Your task to perform on an android device: turn pop-ups on in chrome Image 0: 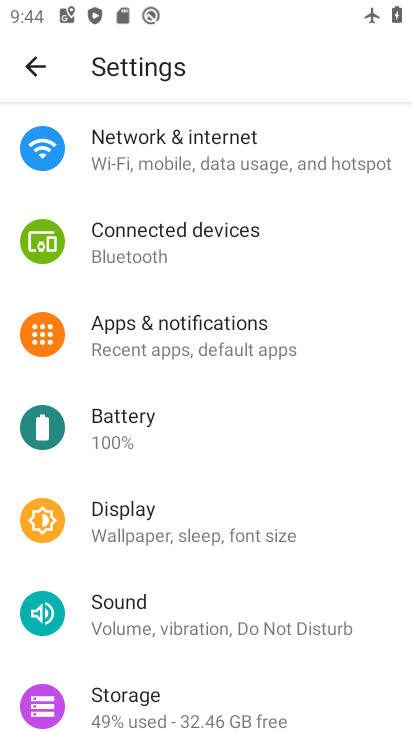
Step 0: press home button
Your task to perform on an android device: turn pop-ups on in chrome Image 1: 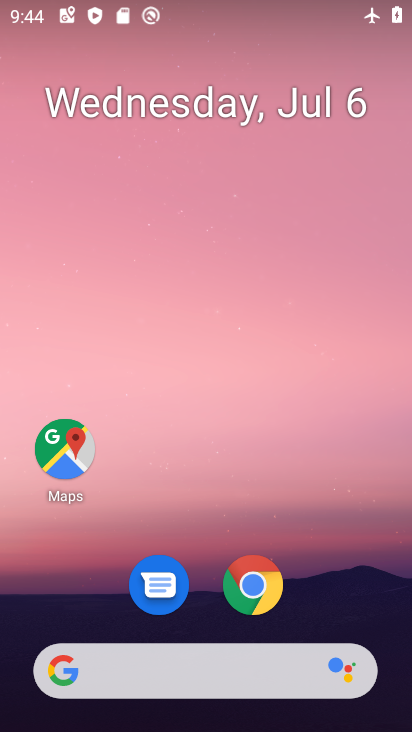
Step 1: click (268, 601)
Your task to perform on an android device: turn pop-ups on in chrome Image 2: 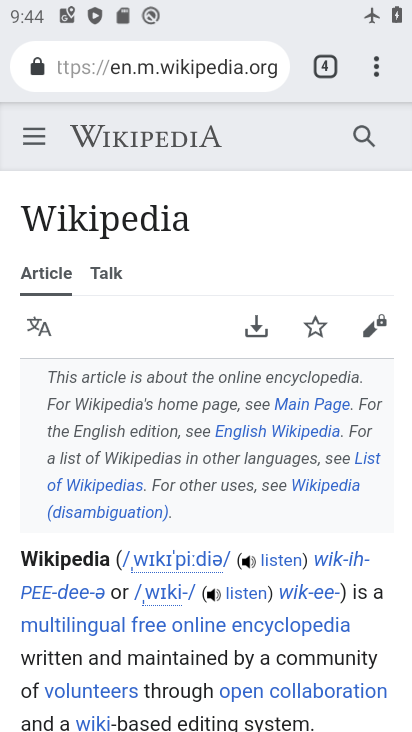
Step 2: click (376, 63)
Your task to perform on an android device: turn pop-ups on in chrome Image 3: 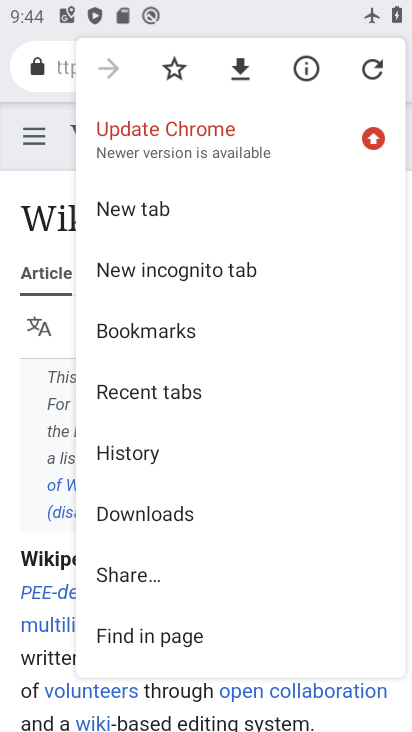
Step 3: drag from (205, 552) to (283, 143)
Your task to perform on an android device: turn pop-ups on in chrome Image 4: 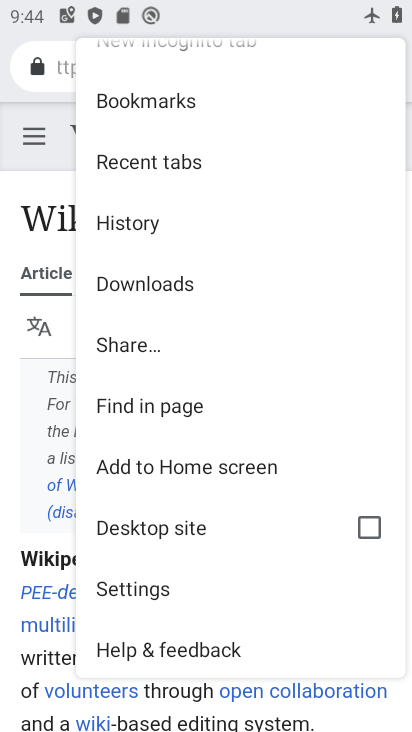
Step 4: click (155, 581)
Your task to perform on an android device: turn pop-ups on in chrome Image 5: 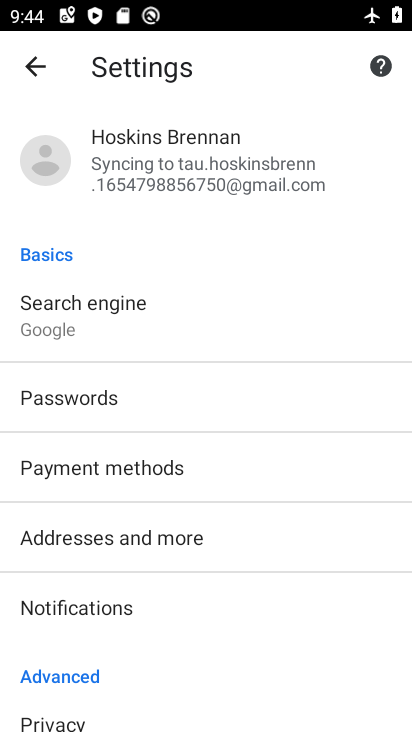
Step 5: drag from (241, 482) to (274, 95)
Your task to perform on an android device: turn pop-ups on in chrome Image 6: 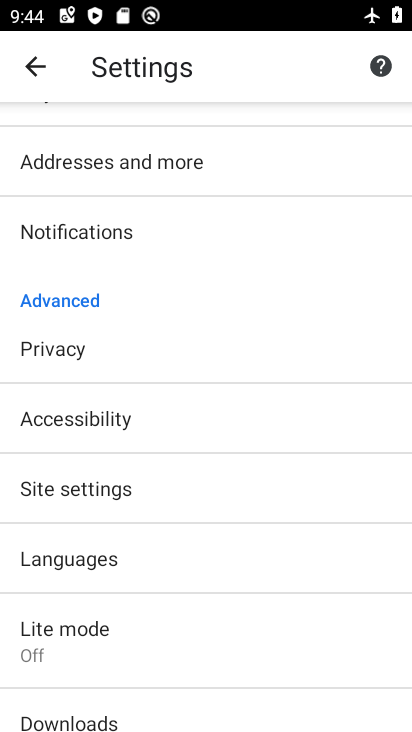
Step 6: drag from (168, 640) to (193, 313)
Your task to perform on an android device: turn pop-ups on in chrome Image 7: 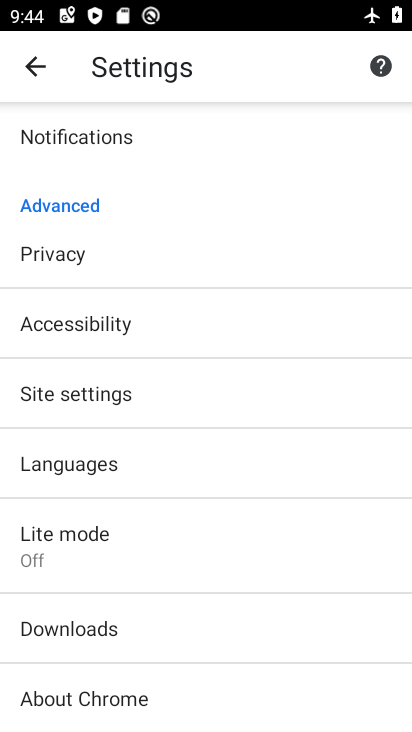
Step 7: click (166, 400)
Your task to perform on an android device: turn pop-ups on in chrome Image 8: 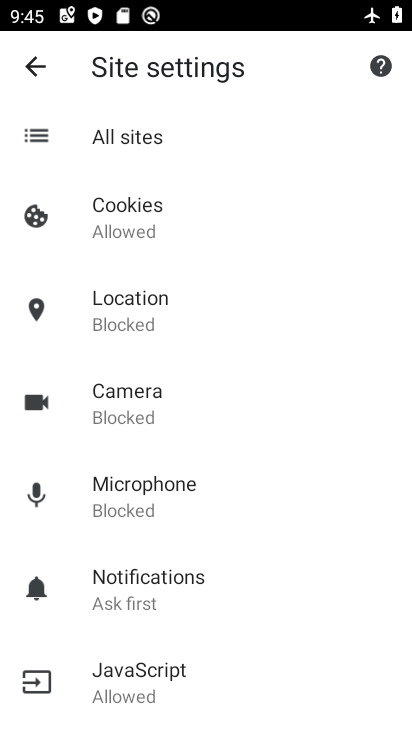
Step 8: drag from (254, 617) to (260, 265)
Your task to perform on an android device: turn pop-ups on in chrome Image 9: 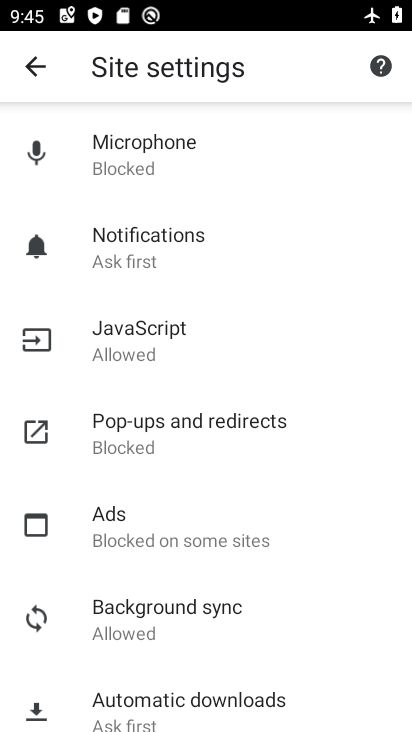
Step 9: click (229, 426)
Your task to perform on an android device: turn pop-ups on in chrome Image 10: 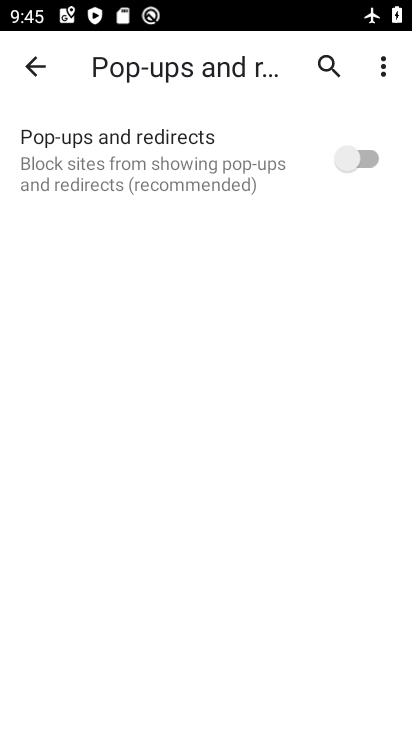
Step 10: click (358, 150)
Your task to perform on an android device: turn pop-ups on in chrome Image 11: 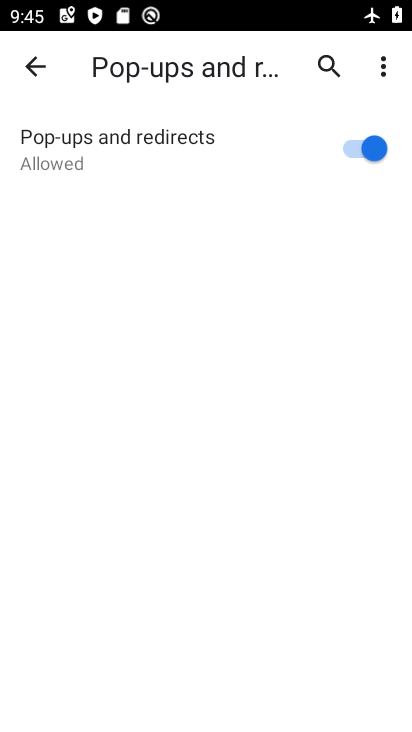
Step 11: task complete